Your task to perform on an android device: toggle sleep mode Image 0: 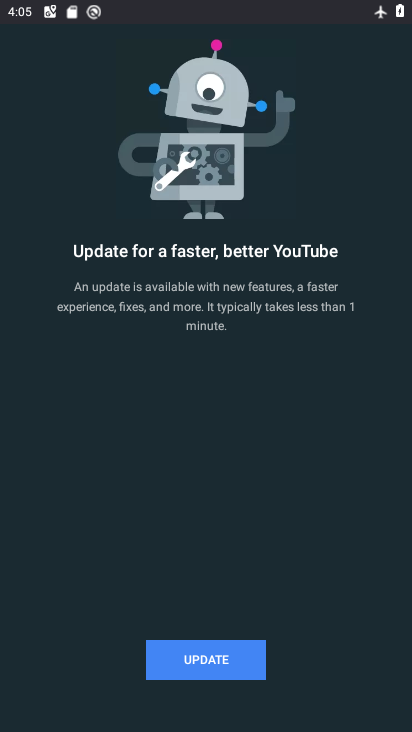
Step 0: press home button
Your task to perform on an android device: toggle sleep mode Image 1: 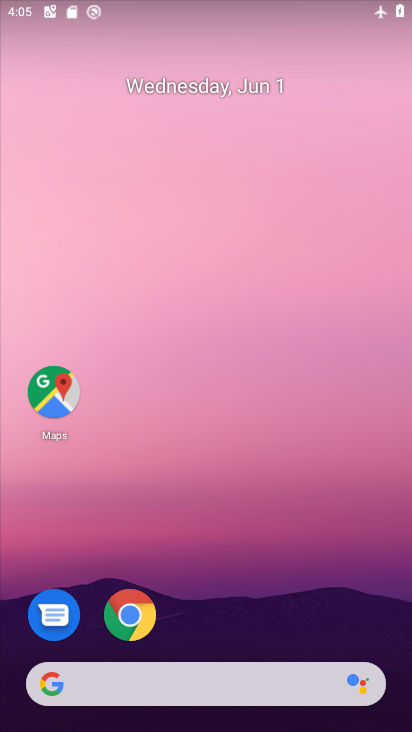
Step 1: drag from (309, 621) to (261, 174)
Your task to perform on an android device: toggle sleep mode Image 2: 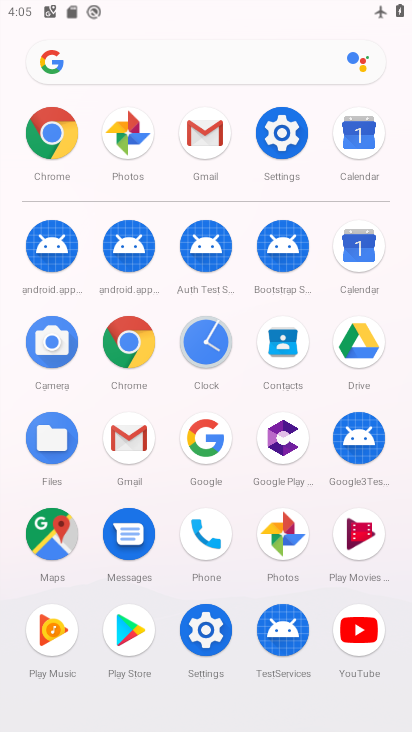
Step 2: click (278, 134)
Your task to perform on an android device: toggle sleep mode Image 3: 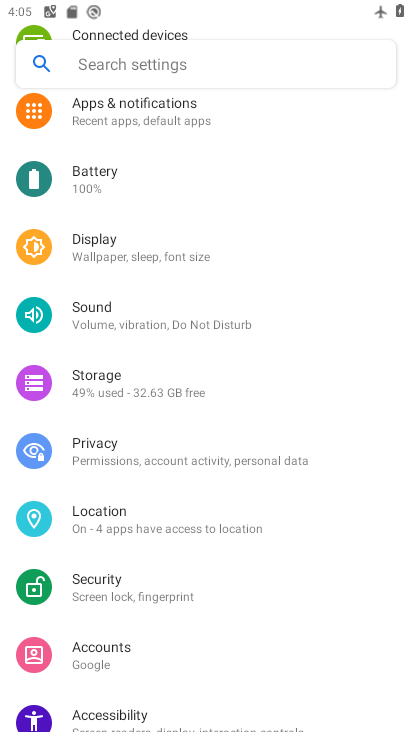
Step 3: drag from (157, 159) to (143, 439)
Your task to perform on an android device: toggle sleep mode Image 4: 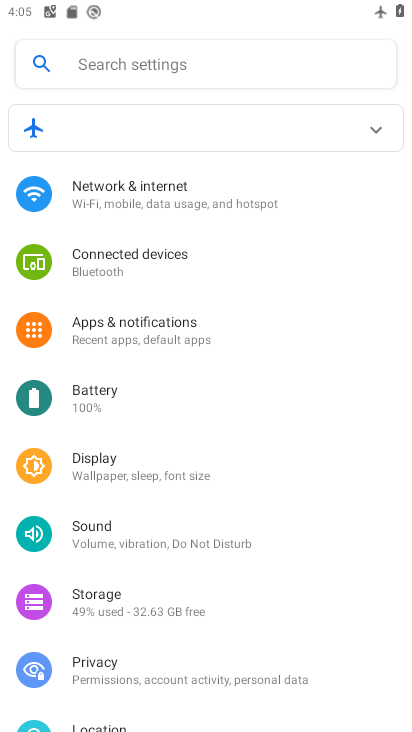
Step 4: click (124, 461)
Your task to perform on an android device: toggle sleep mode Image 5: 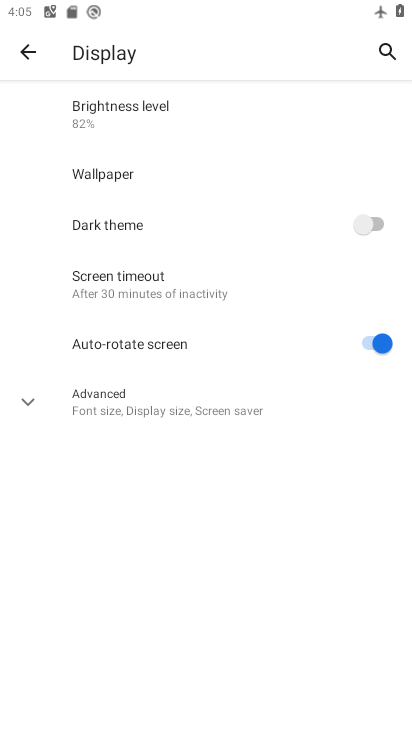
Step 5: click (153, 274)
Your task to perform on an android device: toggle sleep mode Image 6: 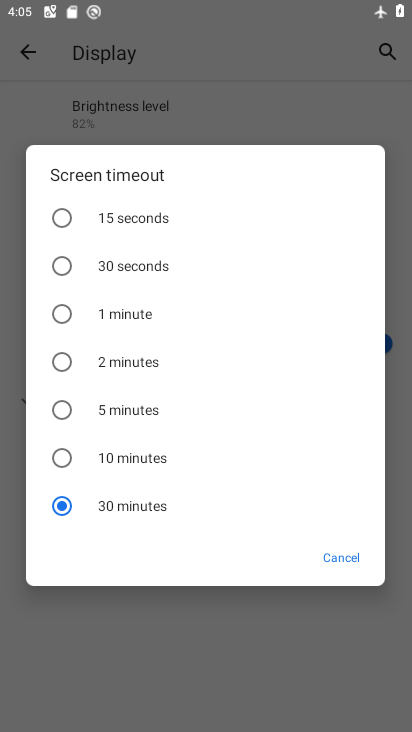
Step 6: click (126, 455)
Your task to perform on an android device: toggle sleep mode Image 7: 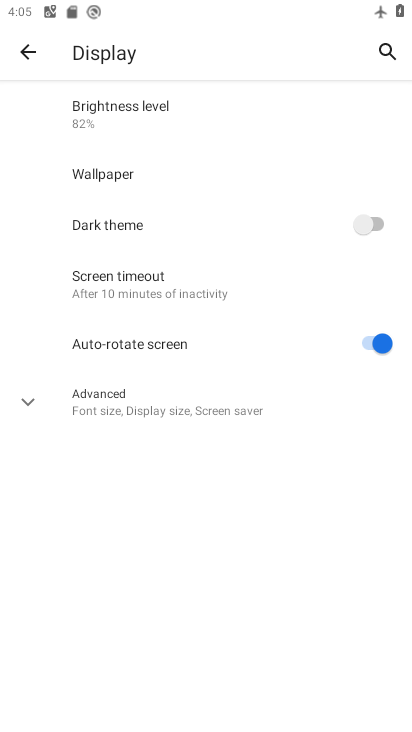
Step 7: task complete